Your task to perform on an android device: Is it going to rain this weekend? Image 0: 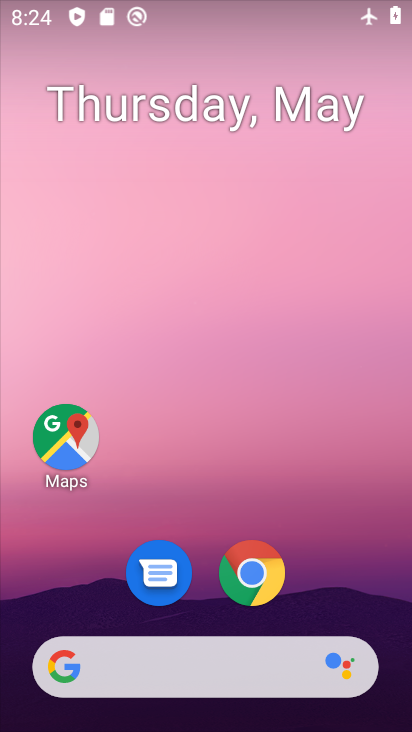
Step 0: drag from (326, 577) to (285, 85)
Your task to perform on an android device: Is it going to rain this weekend? Image 1: 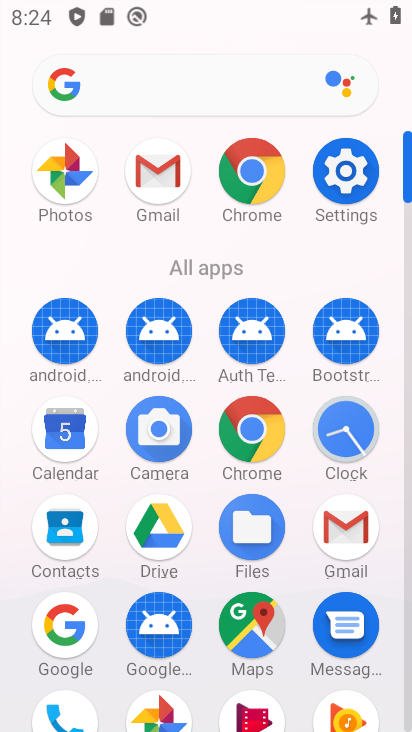
Step 1: click (246, 189)
Your task to perform on an android device: Is it going to rain this weekend? Image 2: 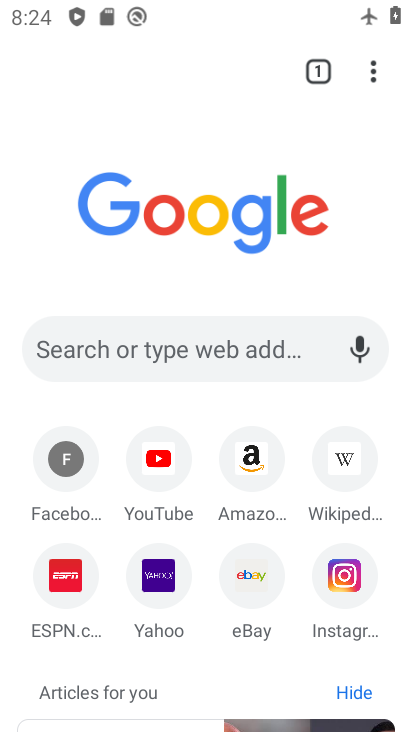
Step 2: click (254, 351)
Your task to perform on an android device: Is it going to rain this weekend? Image 3: 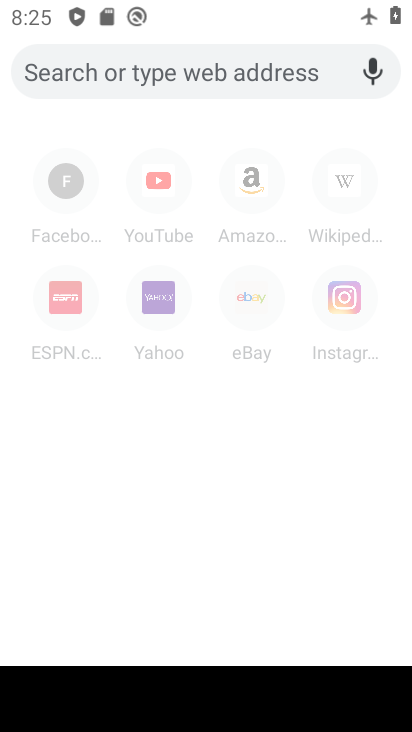
Step 3: type "is it going to rain this weekend?"
Your task to perform on an android device: Is it going to rain this weekend? Image 4: 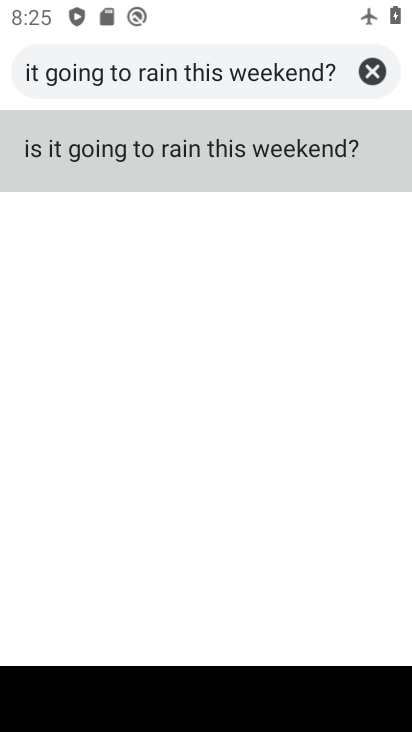
Step 4: click (257, 163)
Your task to perform on an android device: Is it going to rain this weekend? Image 5: 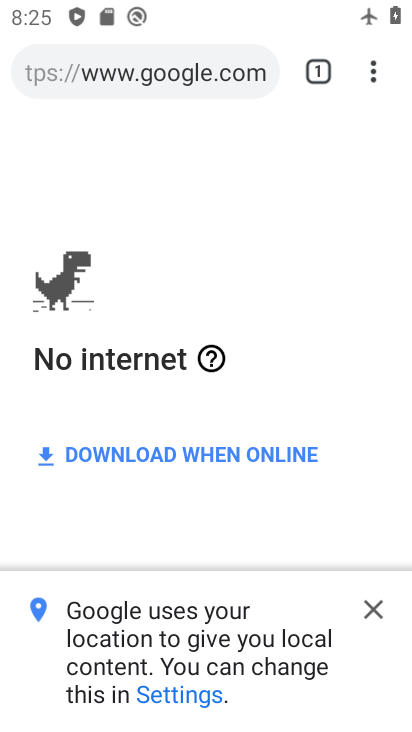
Step 5: task complete